Your task to perform on an android device: Go to ESPN.com Image 0: 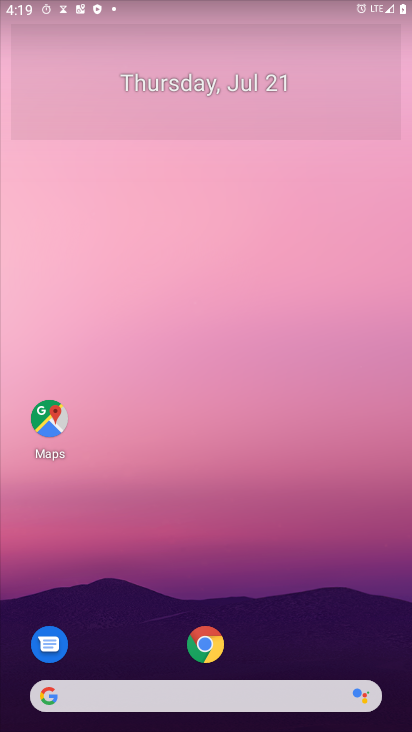
Step 0: press home button
Your task to perform on an android device: Go to ESPN.com Image 1: 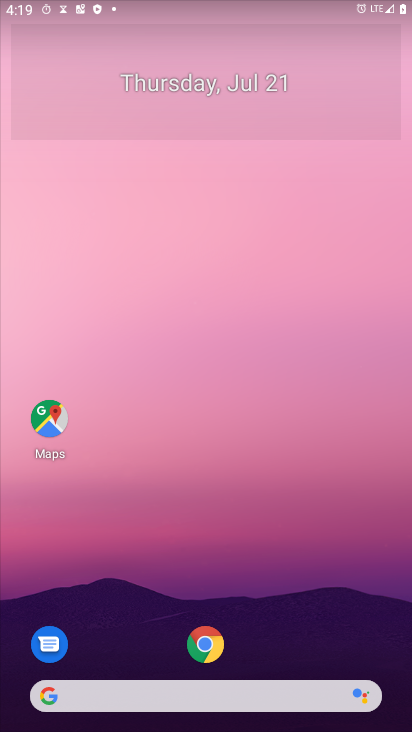
Step 1: click (51, 696)
Your task to perform on an android device: Go to ESPN.com Image 2: 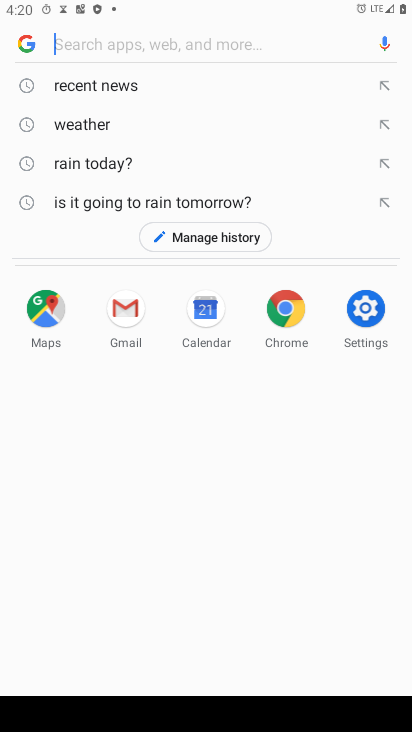
Step 2: press enter
Your task to perform on an android device: Go to ESPN.com Image 3: 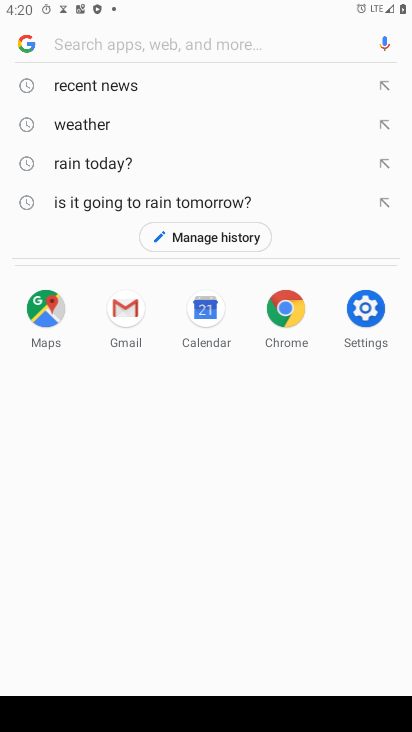
Step 3: type "ESPN.com"
Your task to perform on an android device: Go to ESPN.com Image 4: 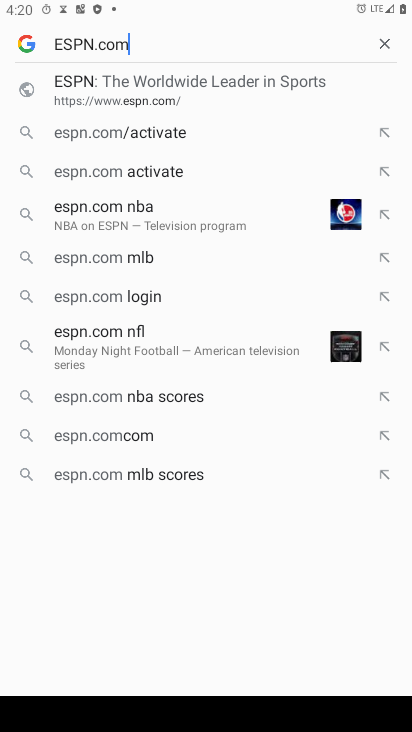
Step 4: click (92, 87)
Your task to perform on an android device: Go to ESPN.com Image 5: 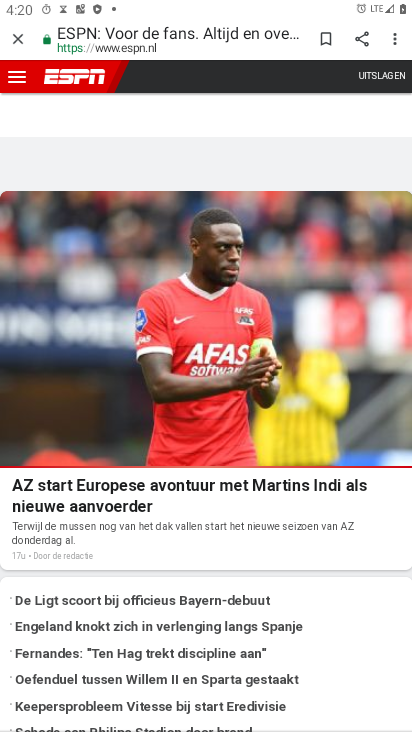
Step 5: task complete